Your task to perform on an android device: Open the Play Movies app and select the watchlist tab. Image 0: 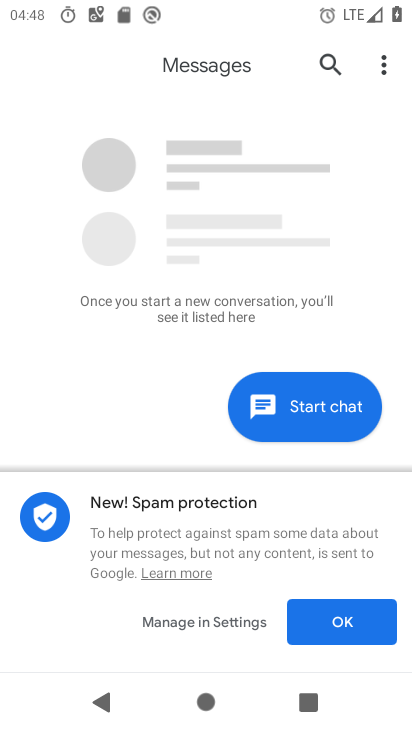
Step 0: press home button
Your task to perform on an android device: Open the Play Movies app and select the watchlist tab. Image 1: 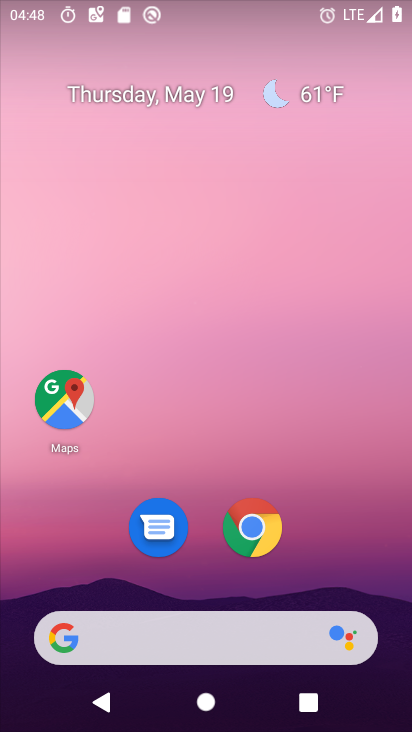
Step 1: drag from (175, 559) to (271, 130)
Your task to perform on an android device: Open the Play Movies app and select the watchlist tab. Image 2: 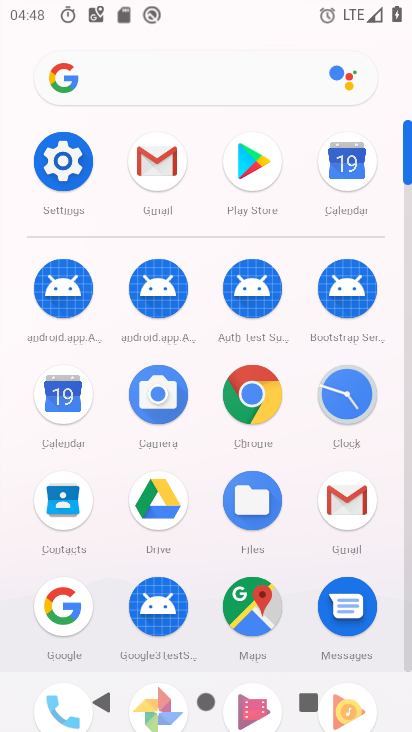
Step 2: drag from (211, 584) to (306, 163)
Your task to perform on an android device: Open the Play Movies app and select the watchlist tab. Image 3: 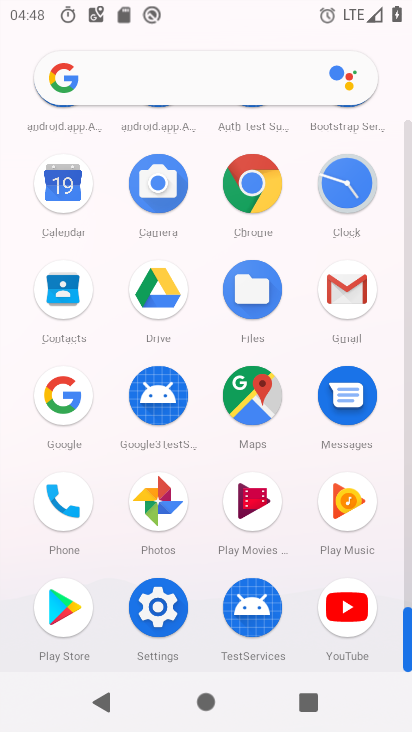
Step 3: click (256, 495)
Your task to perform on an android device: Open the Play Movies app and select the watchlist tab. Image 4: 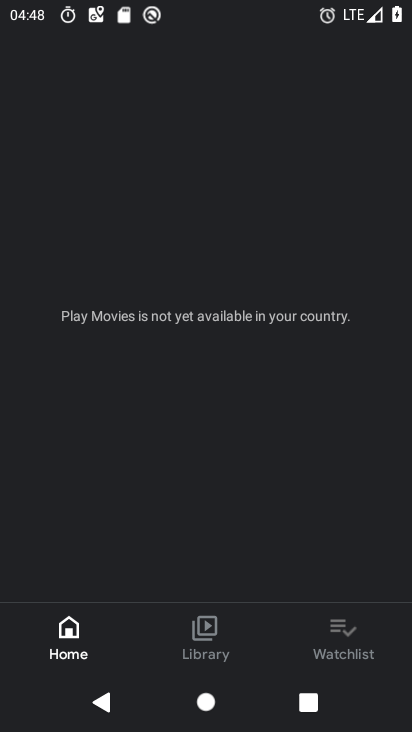
Step 4: click (343, 657)
Your task to perform on an android device: Open the Play Movies app and select the watchlist tab. Image 5: 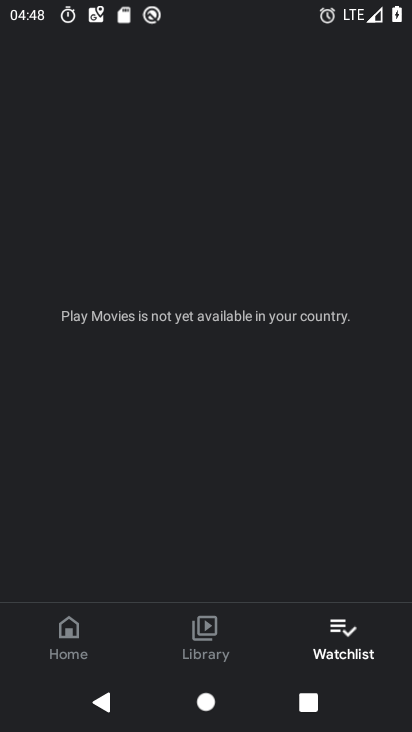
Step 5: task complete